Your task to perform on an android device: empty trash in google photos Image 0: 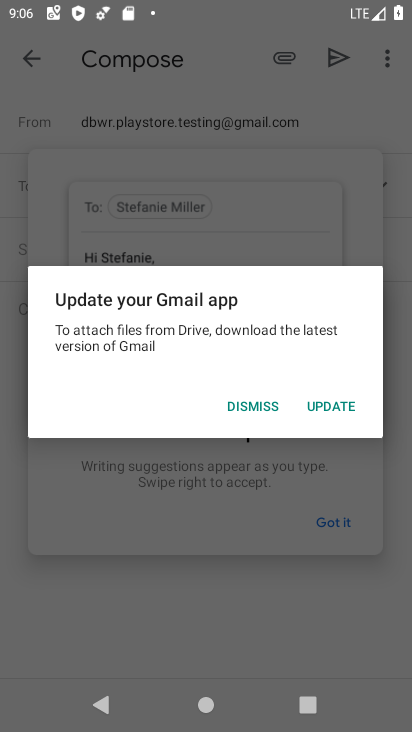
Step 0: press home button
Your task to perform on an android device: empty trash in google photos Image 1: 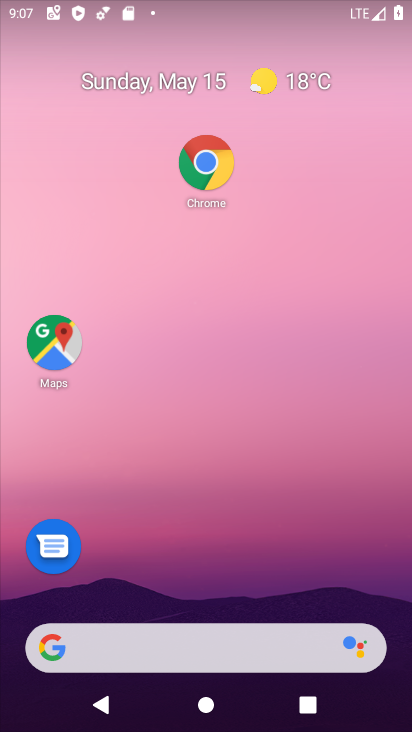
Step 1: drag from (239, 584) to (301, 284)
Your task to perform on an android device: empty trash in google photos Image 2: 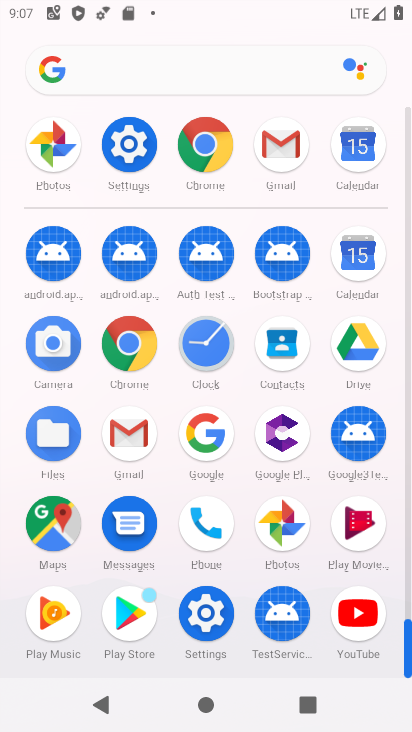
Step 2: click (285, 527)
Your task to perform on an android device: empty trash in google photos Image 3: 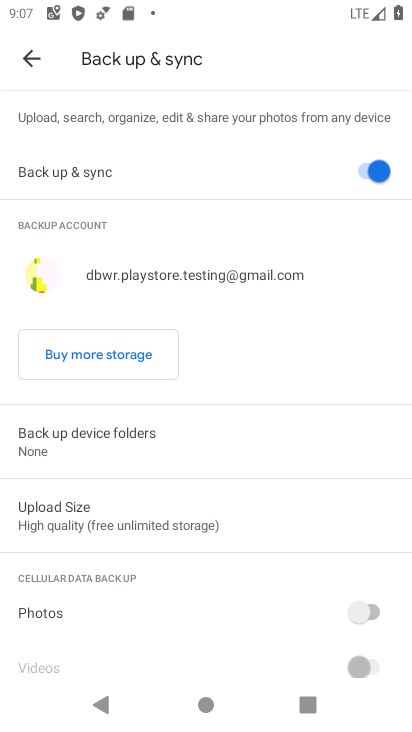
Step 3: click (11, 55)
Your task to perform on an android device: empty trash in google photos Image 4: 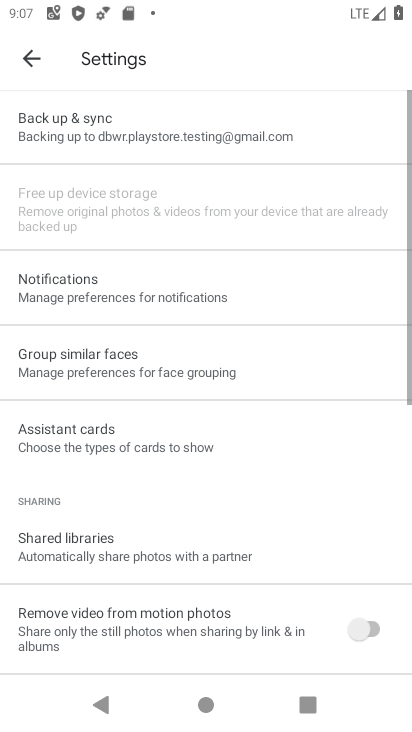
Step 4: click (33, 55)
Your task to perform on an android device: empty trash in google photos Image 5: 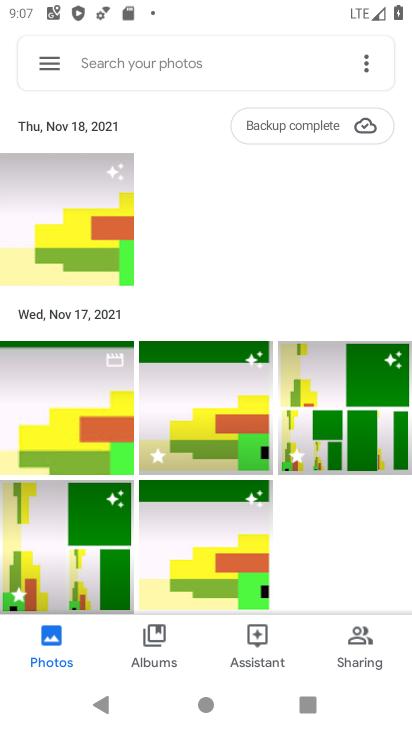
Step 5: click (35, 54)
Your task to perform on an android device: empty trash in google photos Image 6: 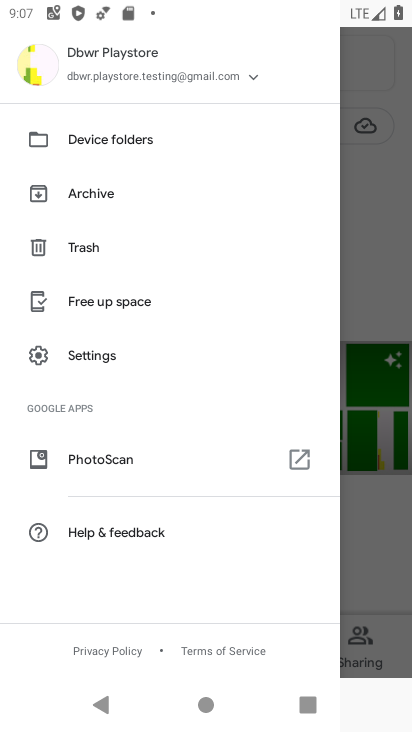
Step 6: click (108, 255)
Your task to perform on an android device: empty trash in google photos Image 7: 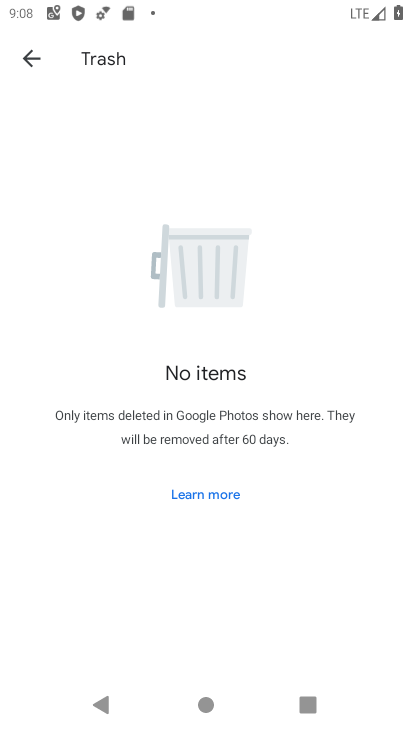
Step 7: task complete